Your task to perform on an android device: Go to Reddit.com Image 0: 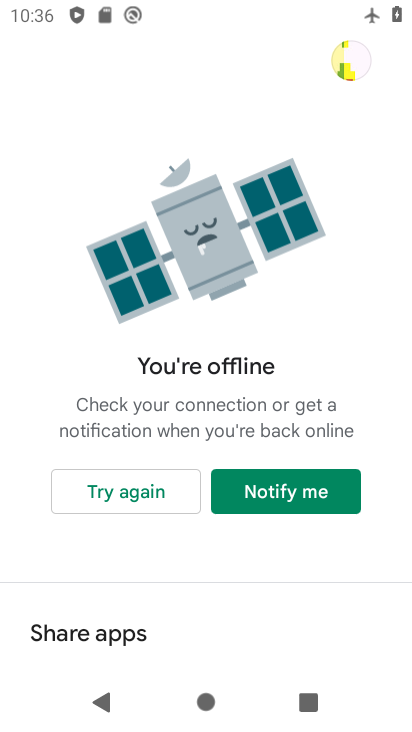
Step 0: press home button
Your task to perform on an android device: Go to Reddit.com Image 1: 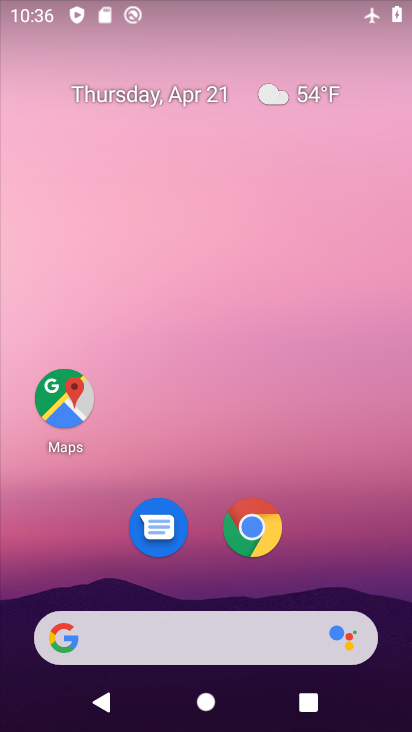
Step 1: click (246, 549)
Your task to perform on an android device: Go to Reddit.com Image 2: 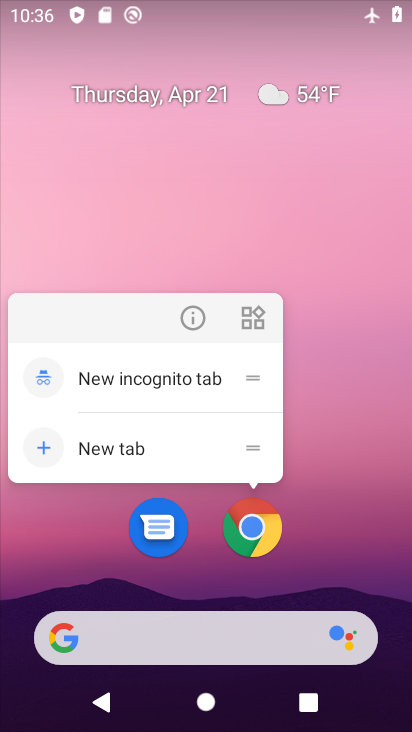
Step 2: click (261, 533)
Your task to perform on an android device: Go to Reddit.com Image 3: 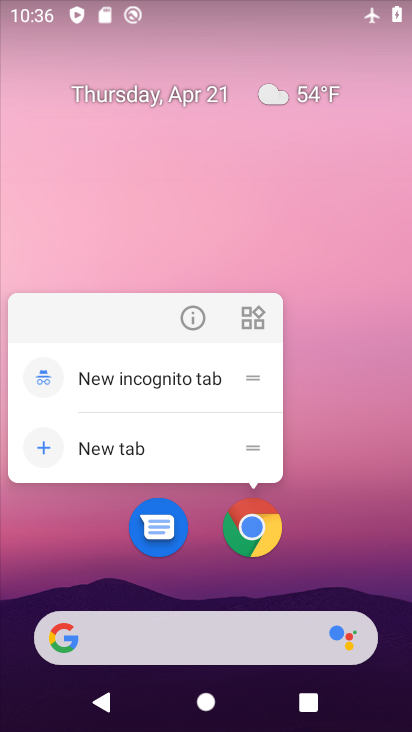
Step 3: click (261, 529)
Your task to perform on an android device: Go to Reddit.com Image 4: 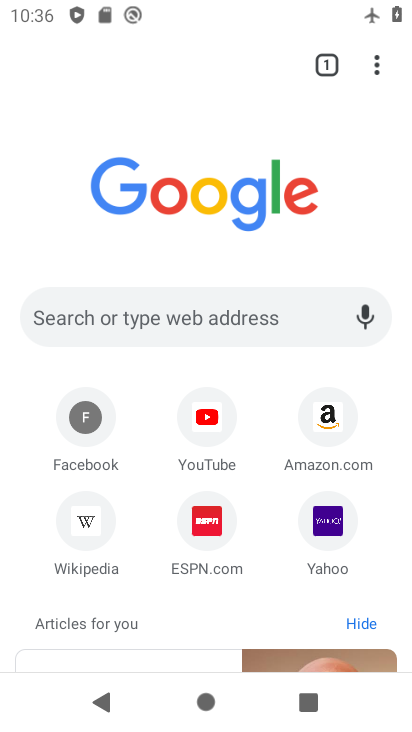
Step 4: drag from (266, 580) to (276, 331)
Your task to perform on an android device: Go to Reddit.com Image 5: 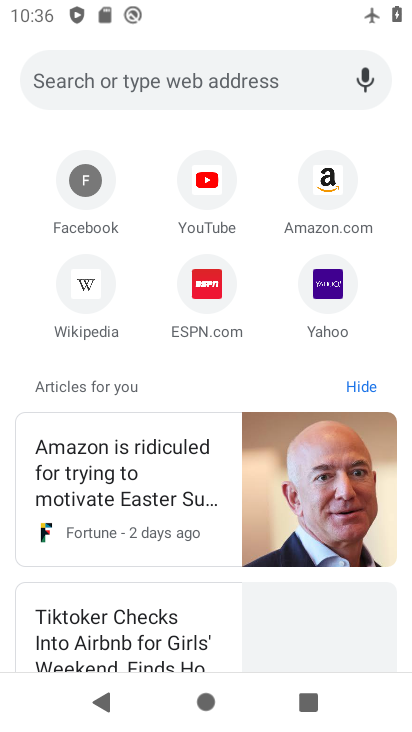
Step 5: click (277, 336)
Your task to perform on an android device: Go to Reddit.com Image 6: 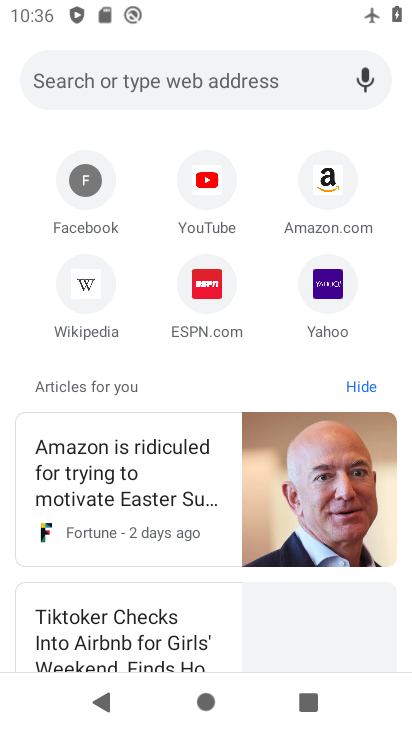
Step 6: click (347, 95)
Your task to perform on an android device: Go to Reddit.com Image 7: 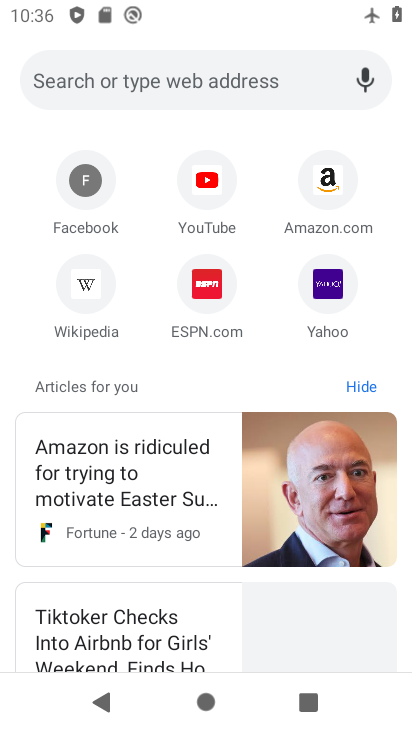
Step 7: click (234, 73)
Your task to perform on an android device: Go to Reddit.com Image 8: 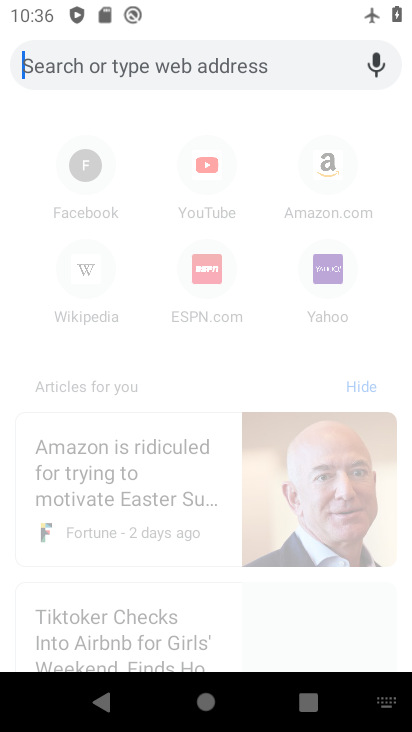
Step 8: type "reddit.com"
Your task to perform on an android device: Go to Reddit.com Image 9: 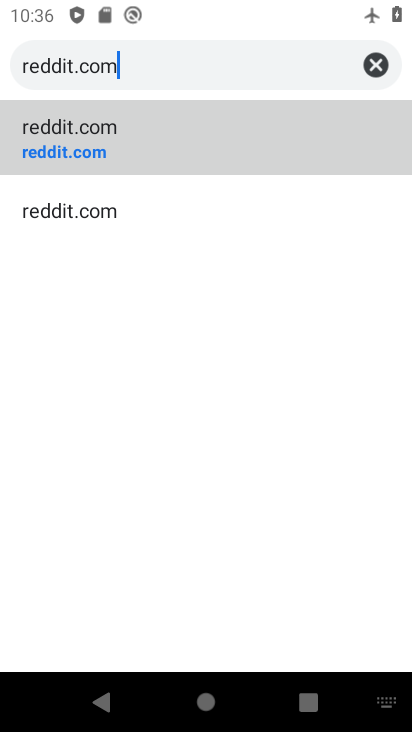
Step 9: click (60, 155)
Your task to perform on an android device: Go to Reddit.com Image 10: 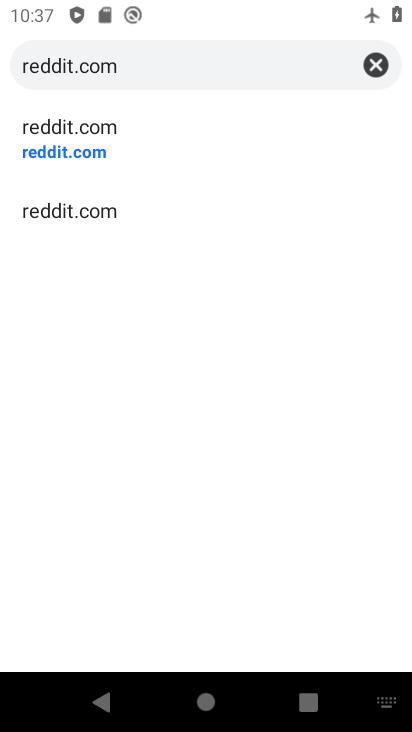
Step 10: click (45, 159)
Your task to perform on an android device: Go to Reddit.com Image 11: 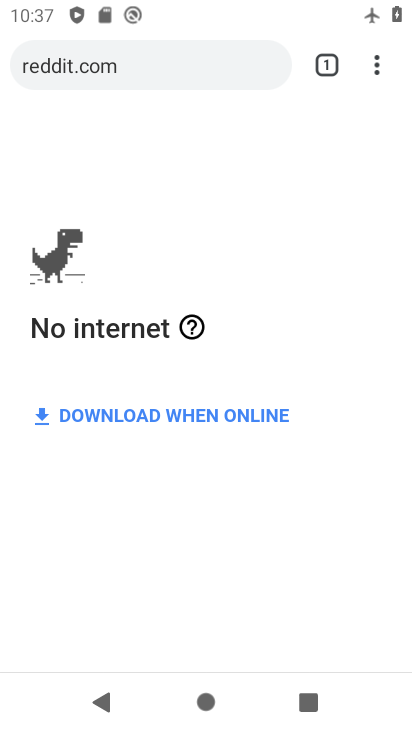
Step 11: task complete